Your task to perform on an android device: Turn off the flashlight Image 0: 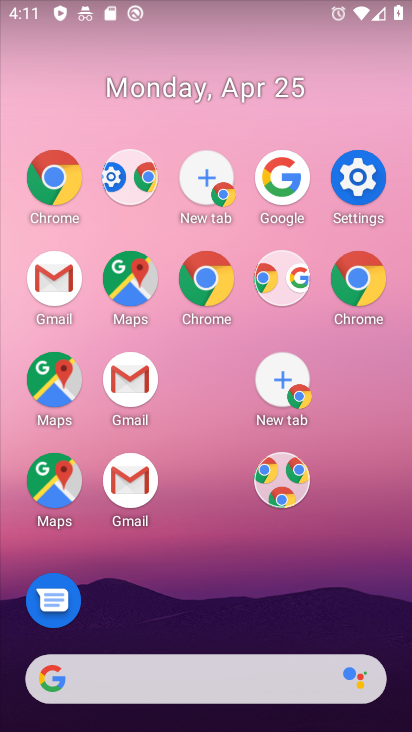
Step 0: drag from (206, 405) to (408, 309)
Your task to perform on an android device: Turn off the flashlight Image 1: 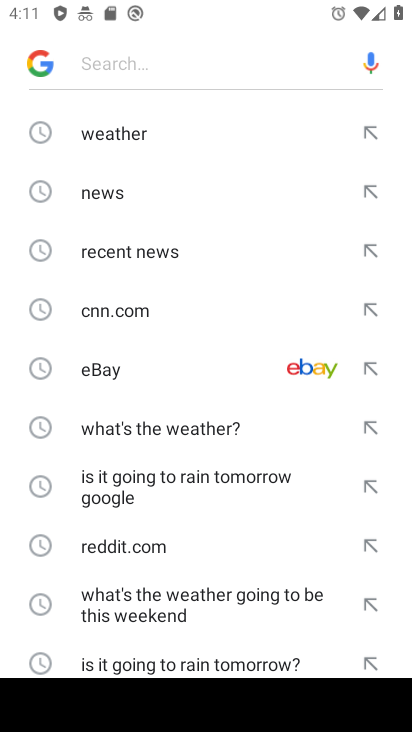
Step 1: task complete